Your task to perform on an android device: delete the emails in spam in the gmail app Image 0: 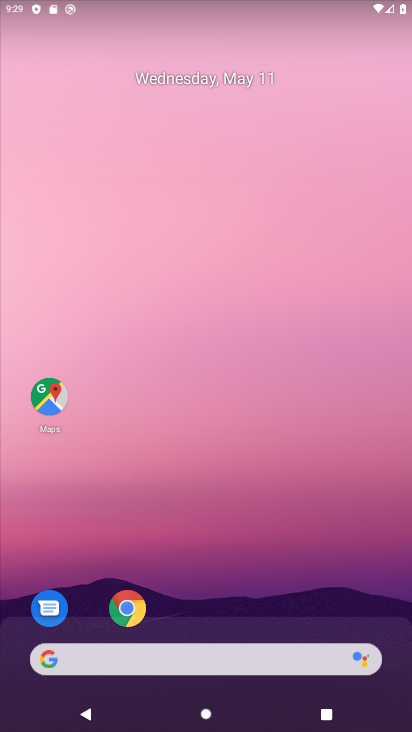
Step 0: drag from (253, 615) to (285, 136)
Your task to perform on an android device: delete the emails in spam in the gmail app Image 1: 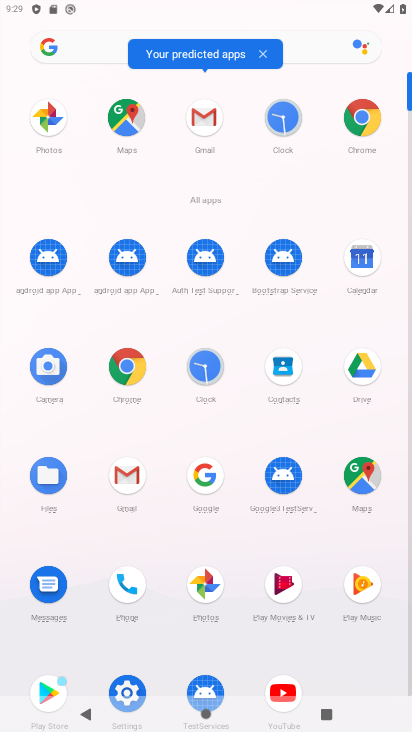
Step 1: click (121, 486)
Your task to perform on an android device: delete the emails in spam in the gmail app Image 2: 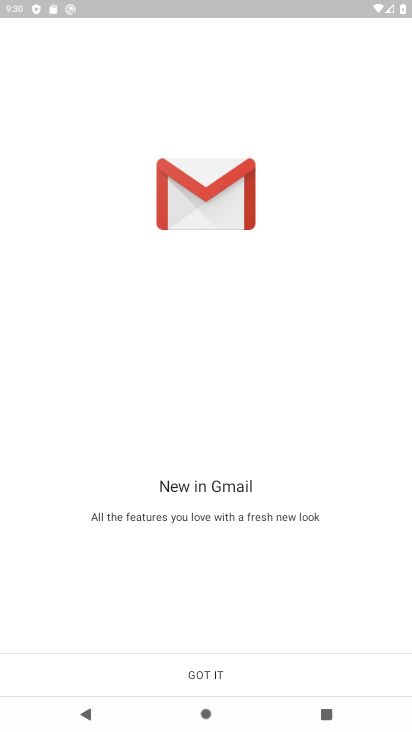
Step 2: click (214, 673)
Your task to perform on an android device: delete the emails in spam in the gmail app Image 3: 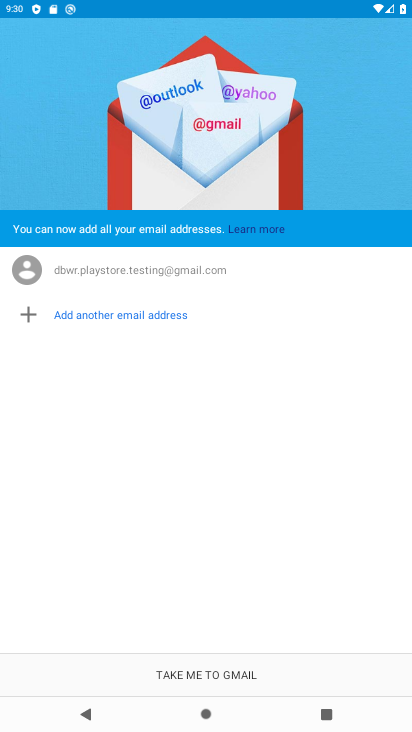
Step 3: click (214, 673)
Your task to perform on an android device: delete the emails in spam in the gmail app Image 4: 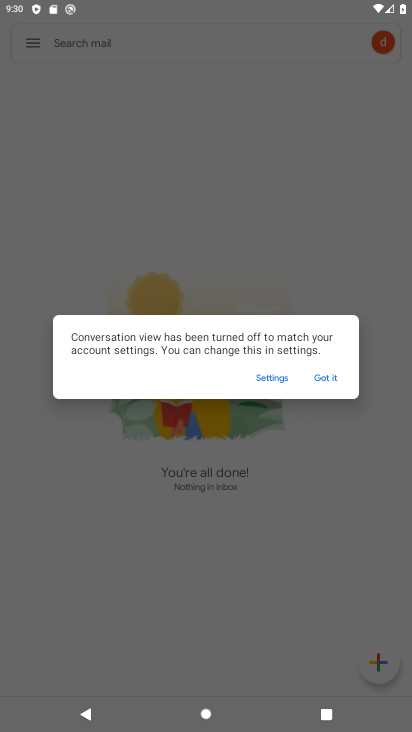
Step 4: click (330, 385)
Your task to perform on an android device: delete the emails in spam in the gmail app Image 5: 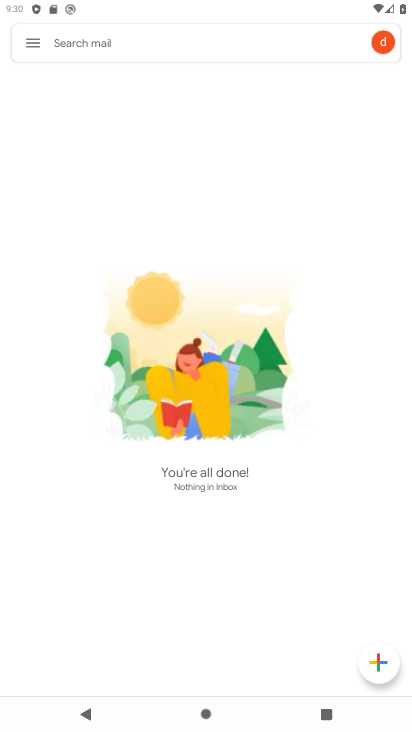
Step 5: click (31, 45)
Your task to perform on an android device: delete the emails in spam in the gmail app Image 6: 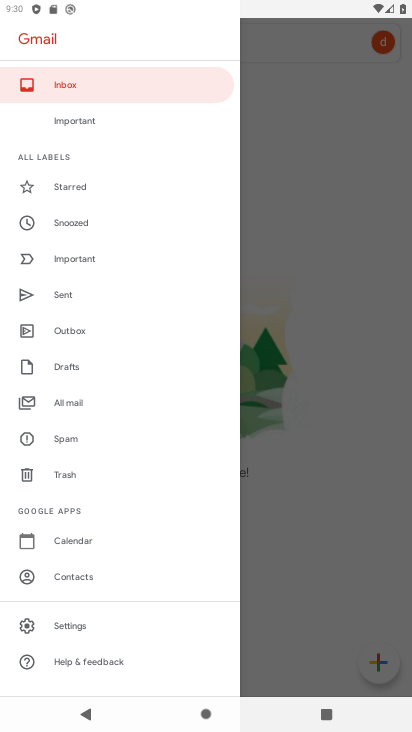
Step 6: click (42, 41)
Your task to perform on an android device: delete the emails in spam in the gmail app Image 7: 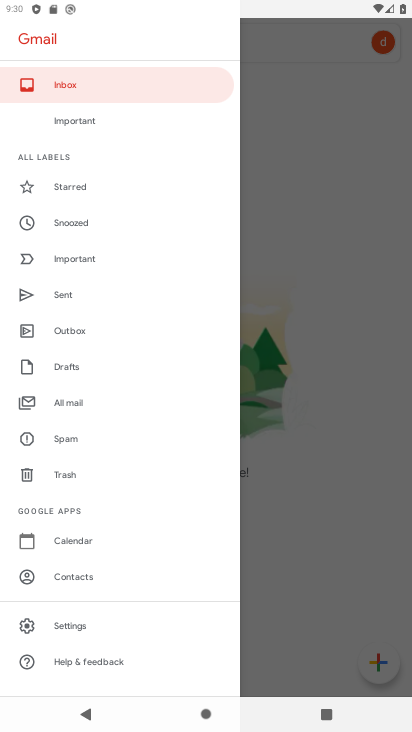
Step 7: drag from (131, 551) to (87, 442)
Your task to perform on an android device: delete the emails in spam in the gmail app Image 8: 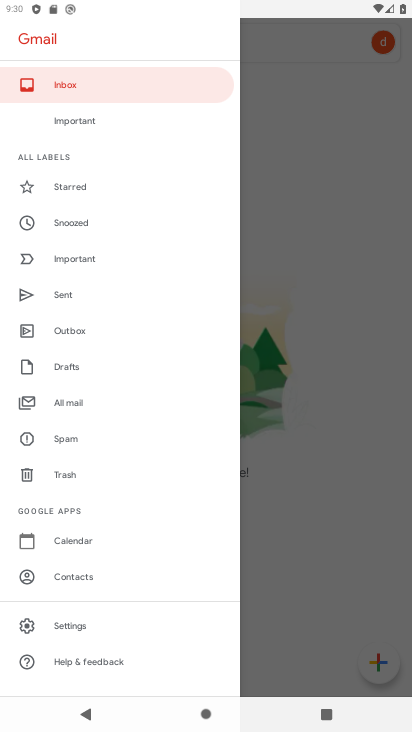
Step 8: click (69, 434)
Your task to perform on an android device: delete the emails in spam in the gmail app Image 9: 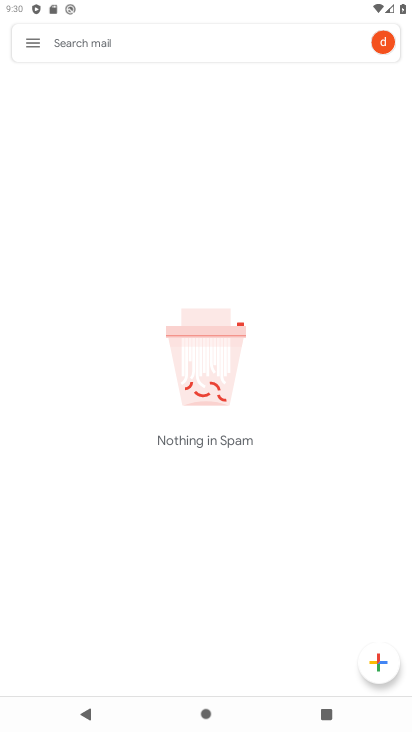
Step 9: task complete